Your task to perform on an android device: see creations saved in the google photos Image 0: 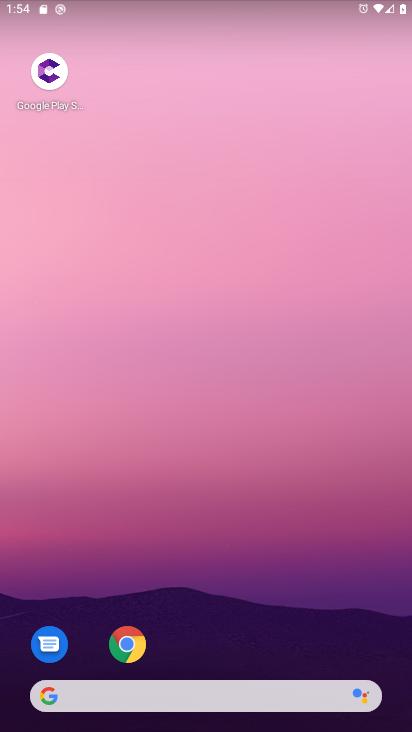
Step 0: drag from (221, 656) to (219, 167)
Your task to perform on an android device: see creations saved in the google photos Image 1: 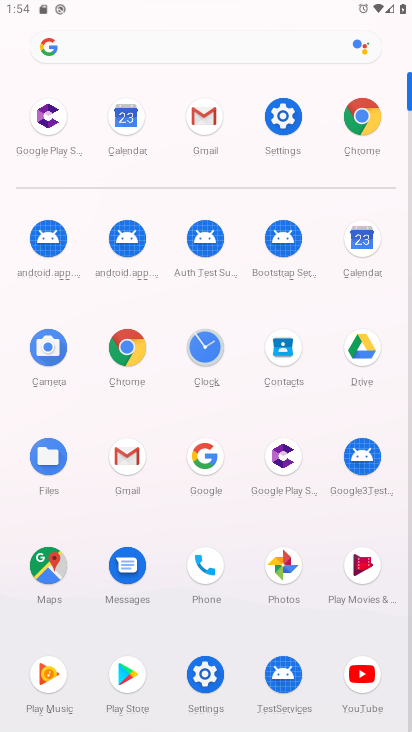
Step 1: click (278, 567)
Your task to perform on an android device: see creations saved in the google photos Image 2: 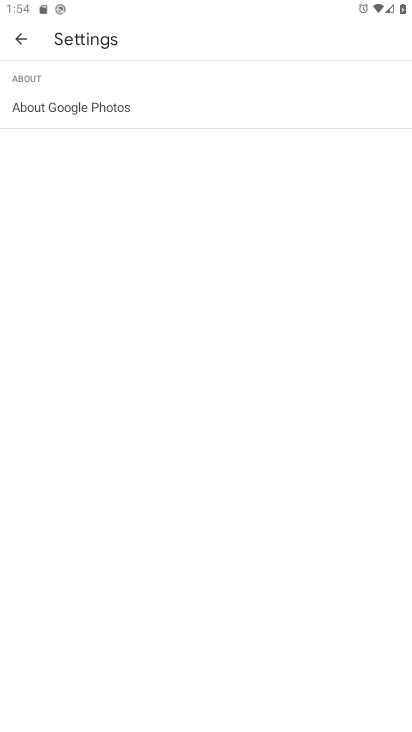
Step 2: click (23, 41)
Your task to perform on an android device: see creations saved in the google photos Image 3: 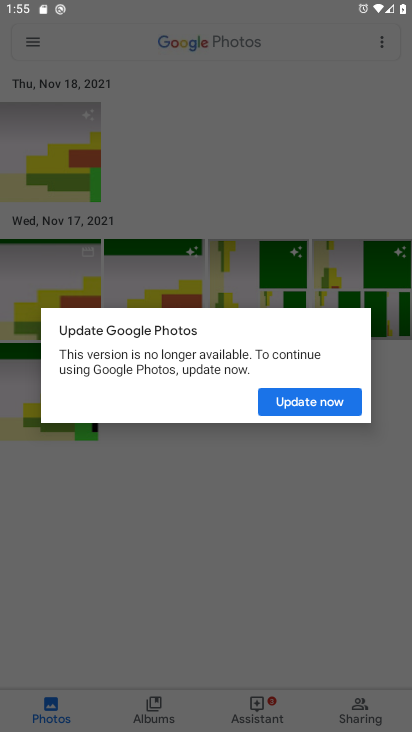
Step 3: click (291, 406)
Your task to perform on an android device: see creations saved in the google photos Image 4: 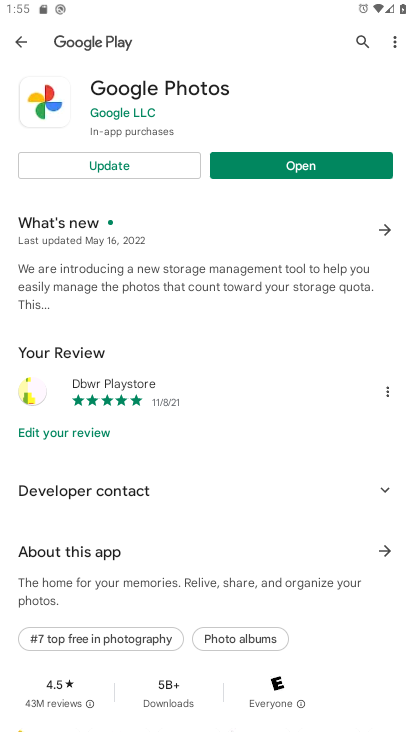
Step 4: click (129, 159)
Your task to perform on an android device: see creations saved in the google photos Image 5: 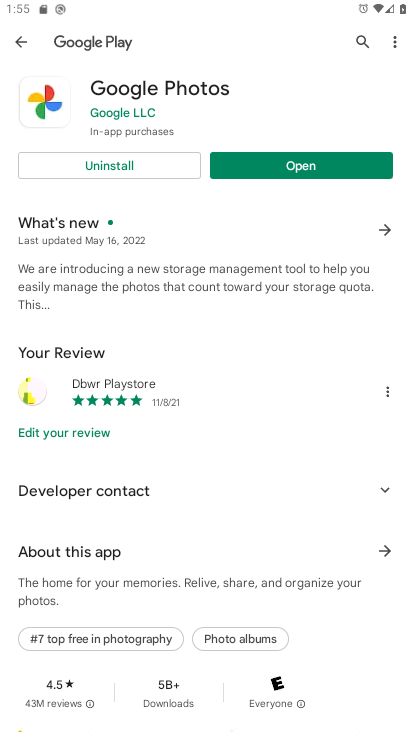
Step 5: click (282, 180)
Your task to perform on an android device: see creations saved in the google photos Image 6: 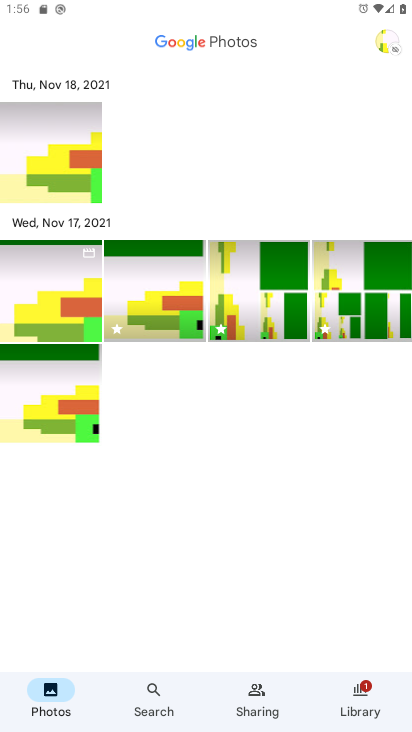
Step 6: click (182, 40)
Your task to perform on an android device: see creations saved in the google photos Image 7: 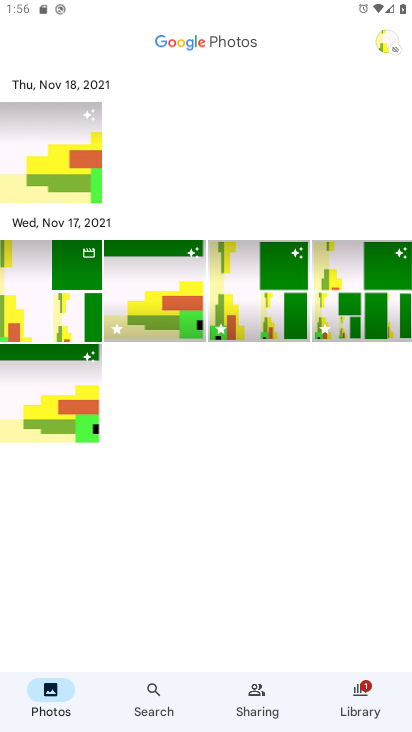
Step 7: click (237, 36)
Your task to perform on an android device: see creations saved in the google photos Image 8: 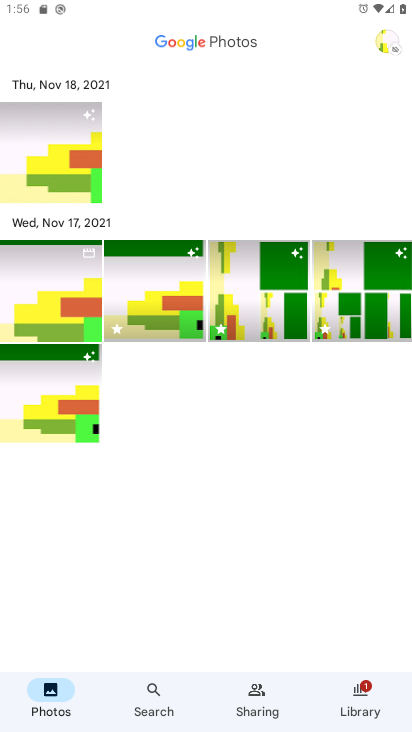
Step 8: click (157, 701)
Your task to perform on an android device: see creations saved in the google photos Image 9: 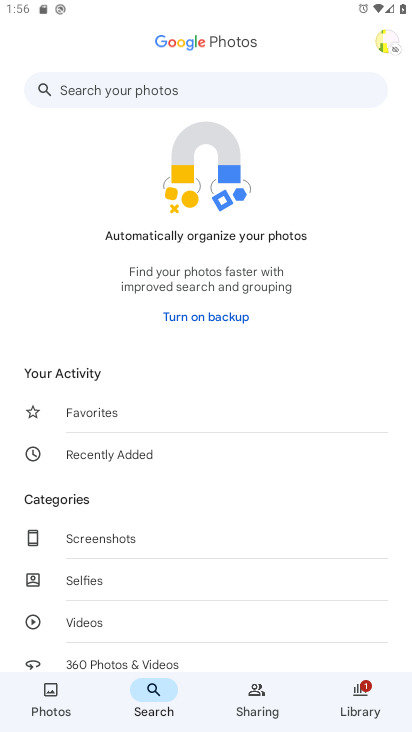
Step 9: drag from (88, 581) to (98, 332)
Your task to perform on an android device: see creations saved in the google photos Image 10: 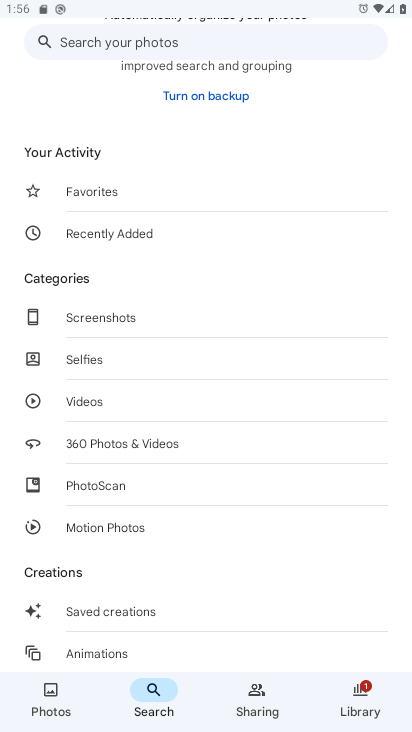
Step 10: click (114, 608)
Your task to perform on an android device: see creations saved in the google photos Image 11: 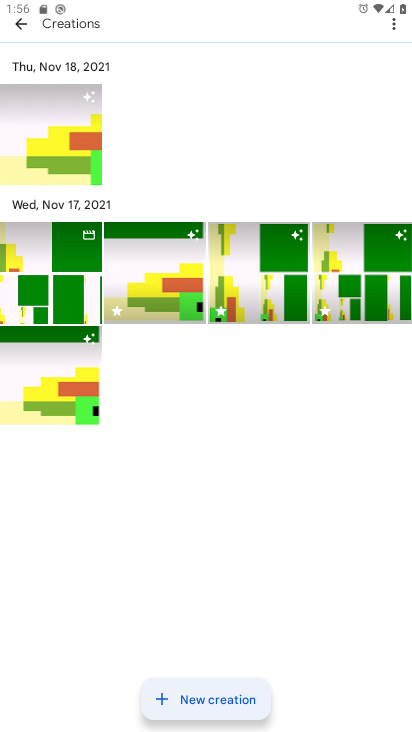
Step 11: task complete